Your task to perform on an android device: allow notifications from all sites in the chrome app Image 0: 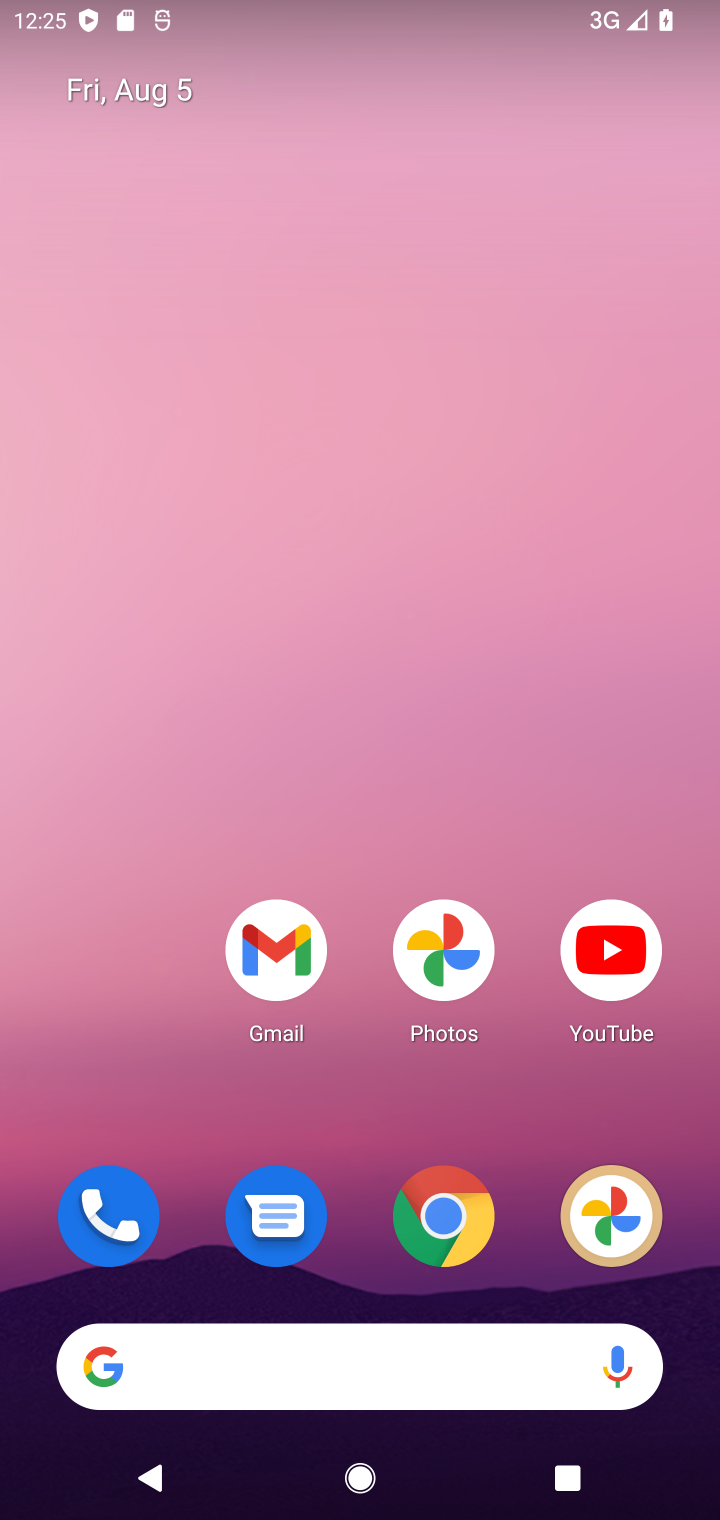
Step 0: drag from (197, 1360) to (330, 192)
Your task to perform on an android device: allow notifications from all sites in the chrome app Image 1: 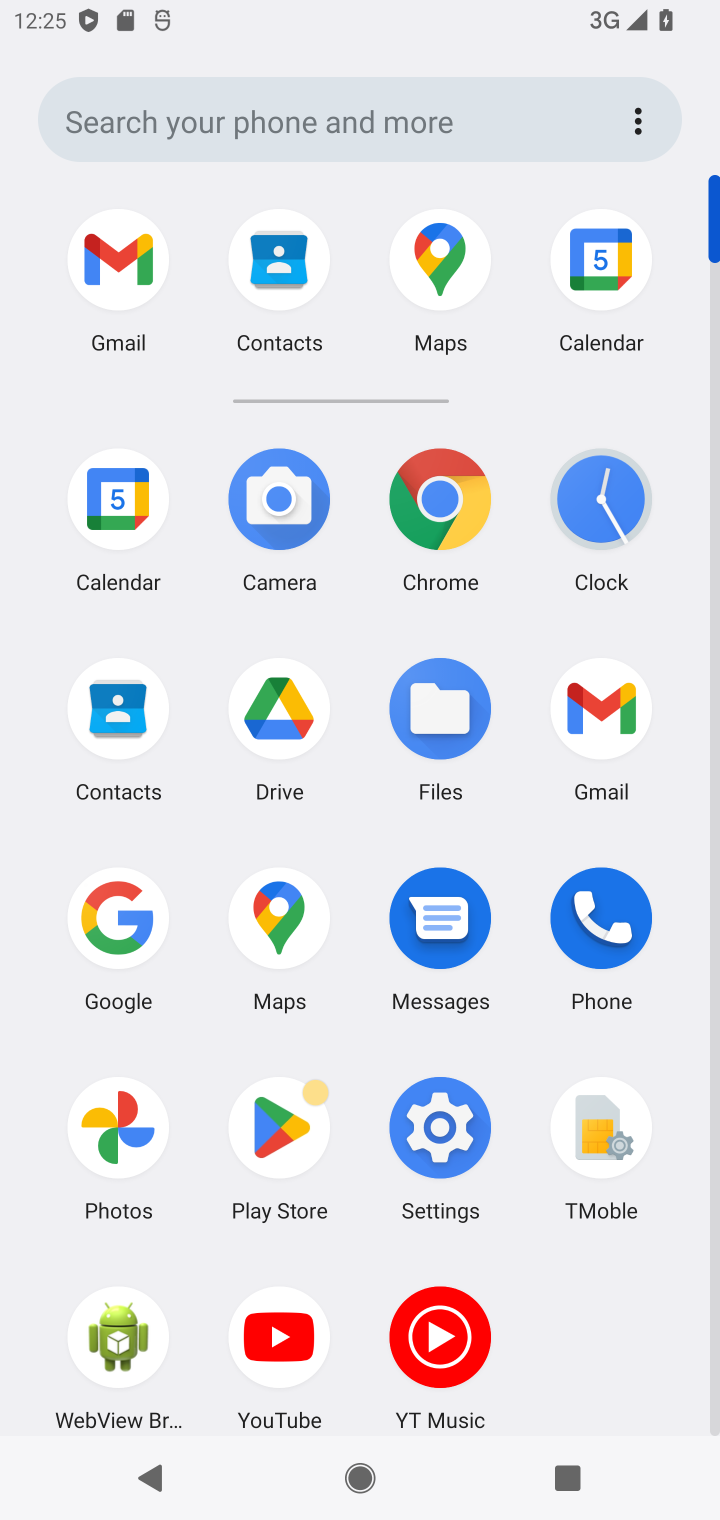
Step 1: click (417, 500)
Your task to perform on an android device: allow notifications from all sites in the chrome app Image 2: 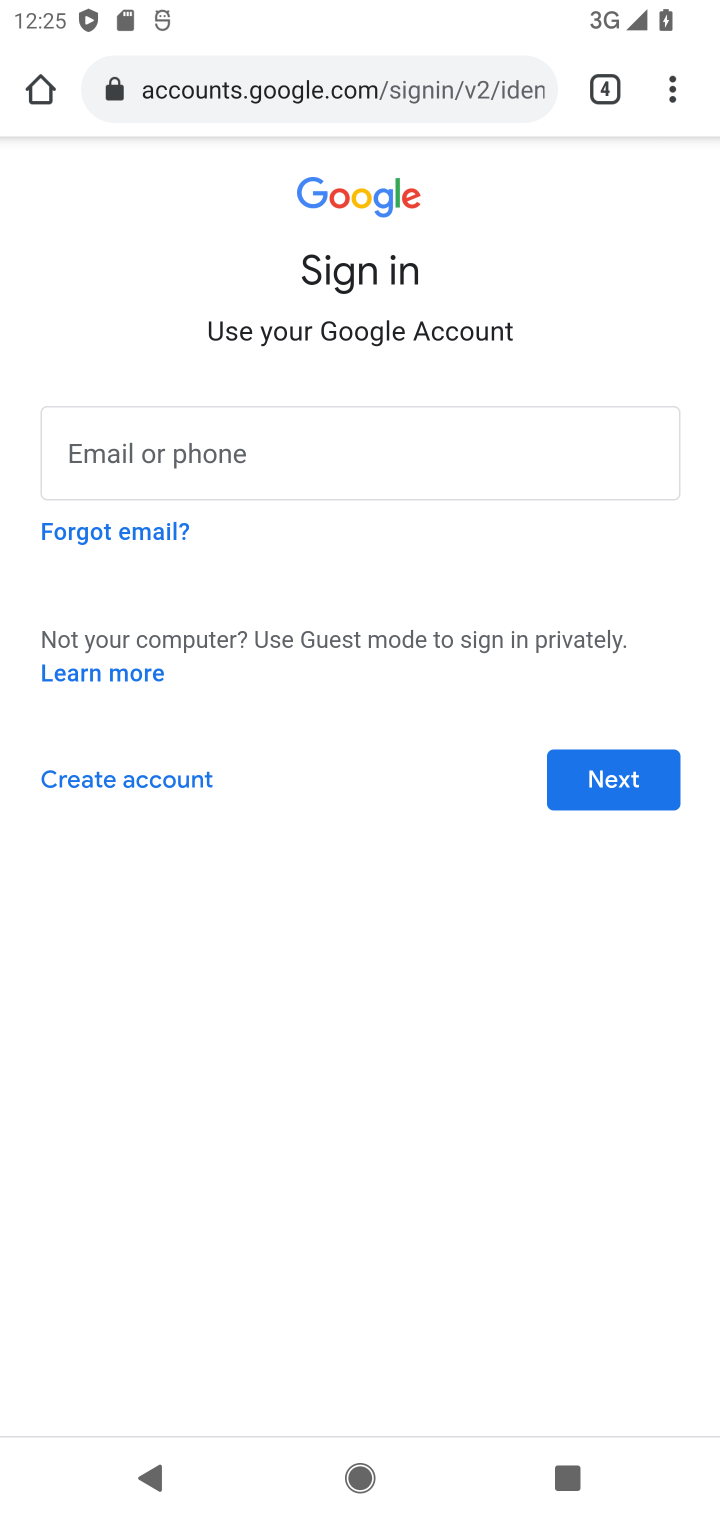
Step 2: click (663, 80)
Your task to perform on an android device: allow notifications from all sites in the chrome app Image 3: 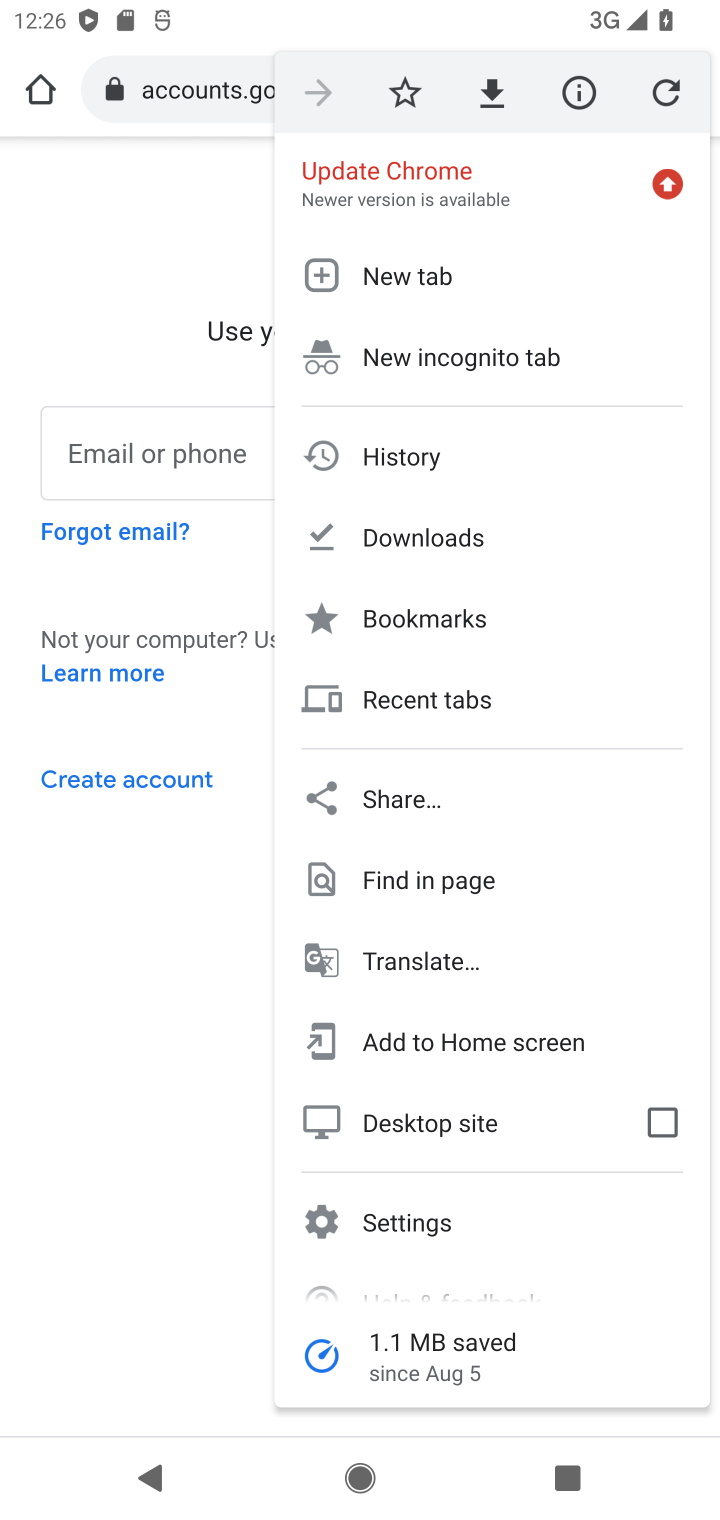
Step 3: click (423, 1214)
Your task to perform on an android device: allow notifications from all sites in the chrome app Image 4: 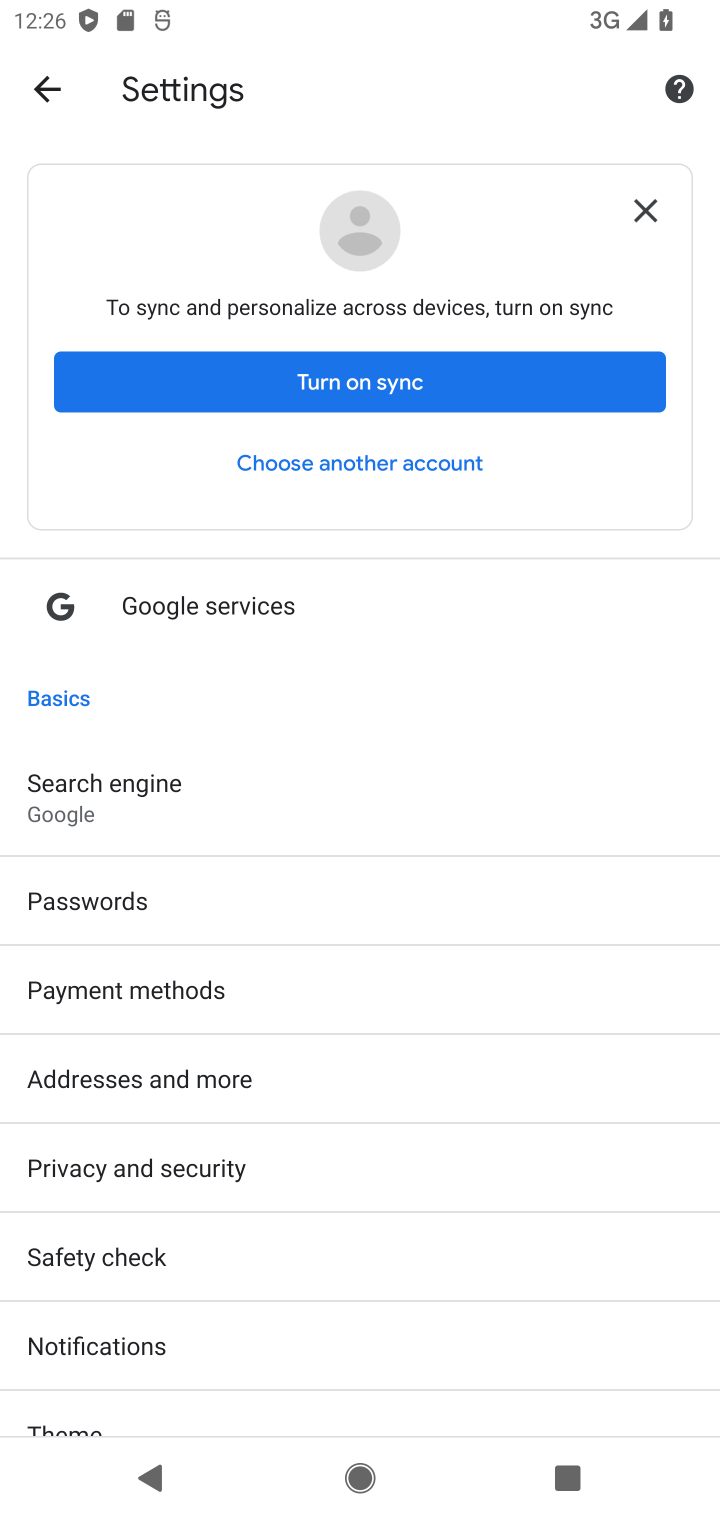
Step 4: drag from (309, 1309) to (334, 354)
Your task to perform on an android device: allow notifications from all sites in the chrome app Image 5: 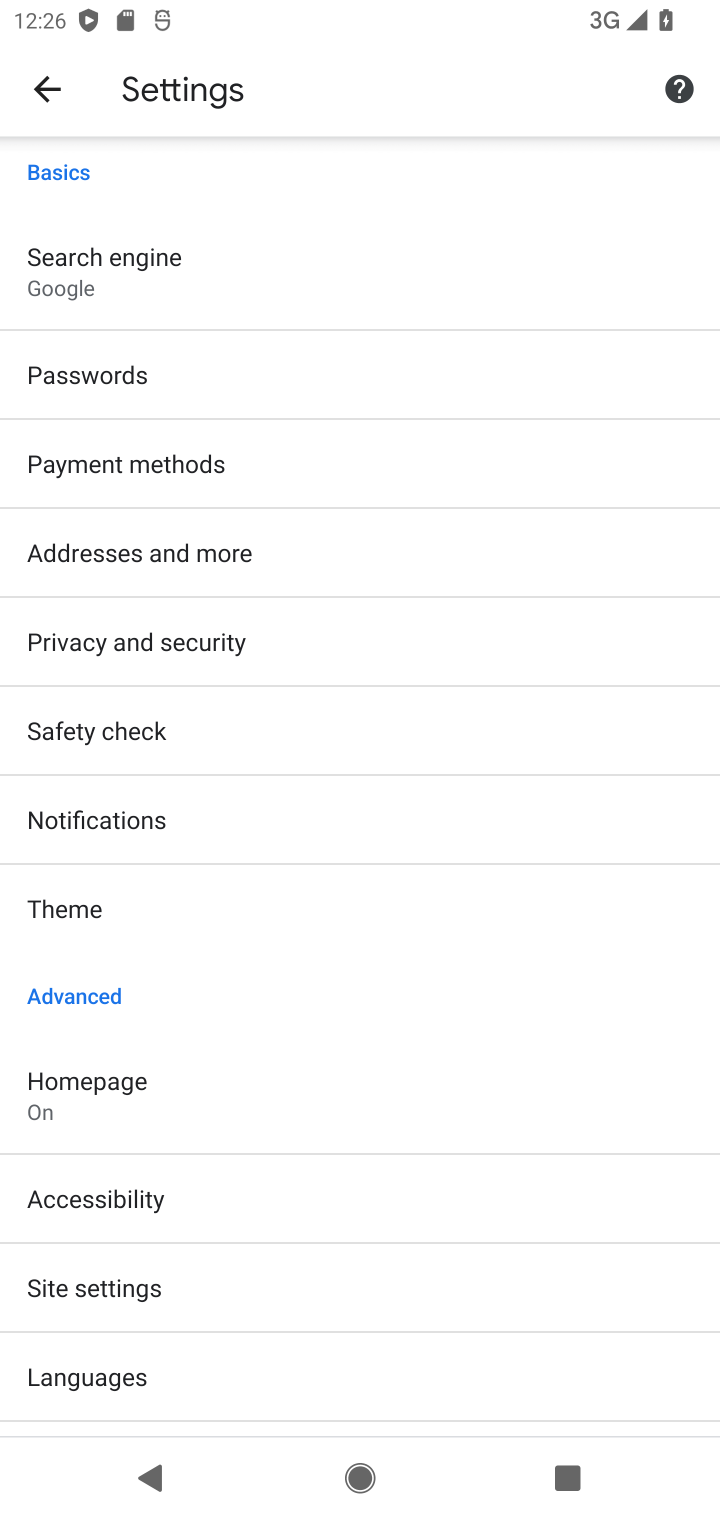
Step 5: click (110, 833)
Your task to perform on an android device: allow notifications from all sites in the chrome app Image 6: 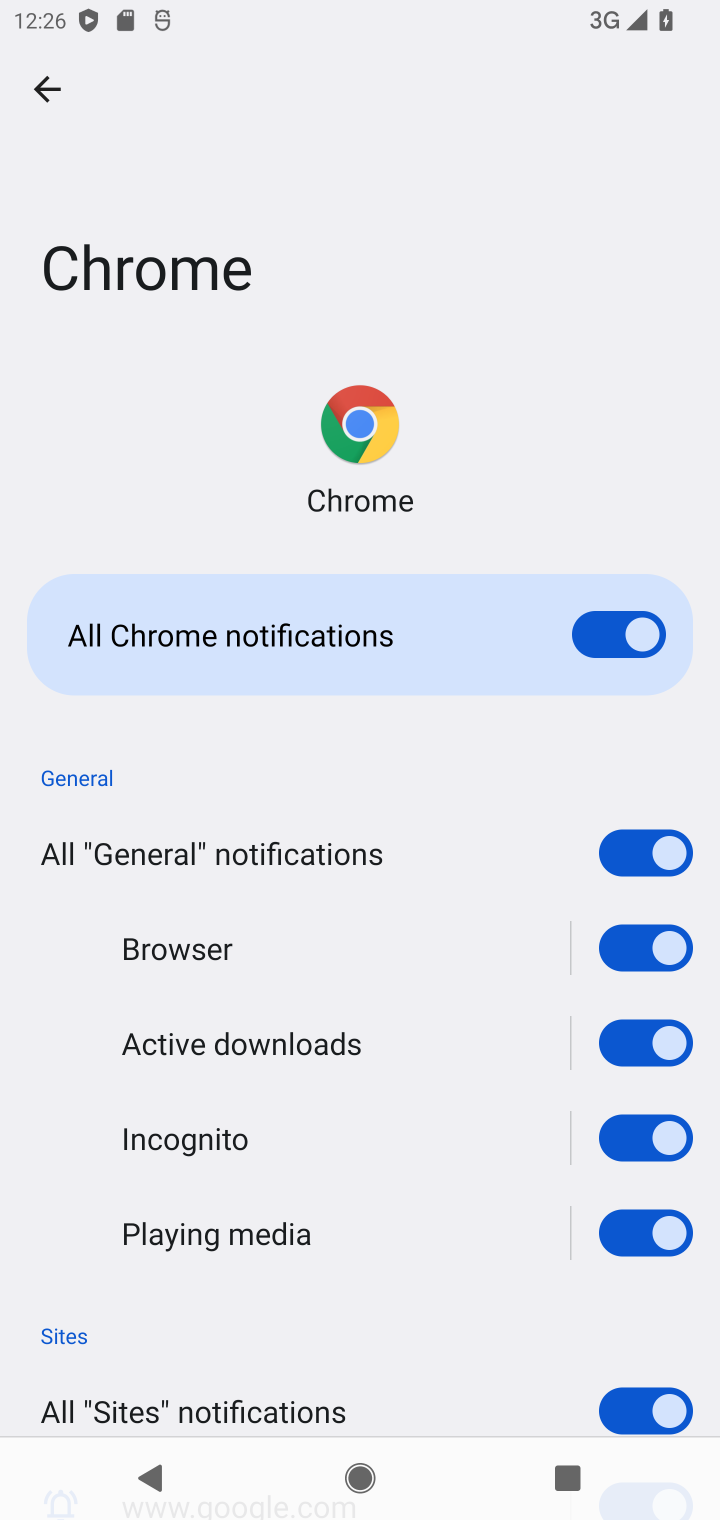
Step 6: task complete